Your task to perform on an android device: set an alarm Image 0: 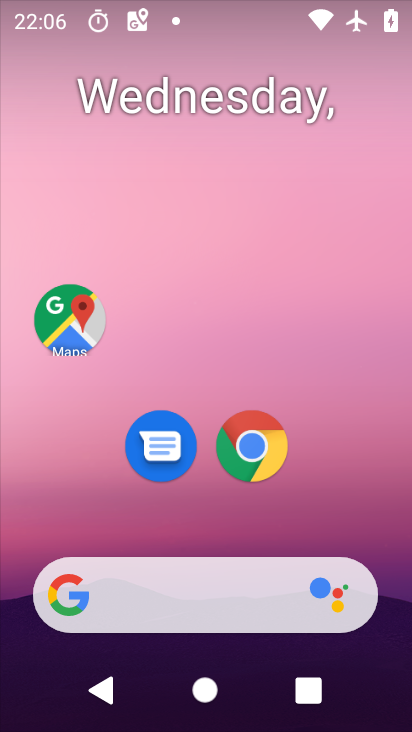
Step 0: drag from (192, 596) to (329, 115)
Your task to perform on an android device: set an alarm Image 1: 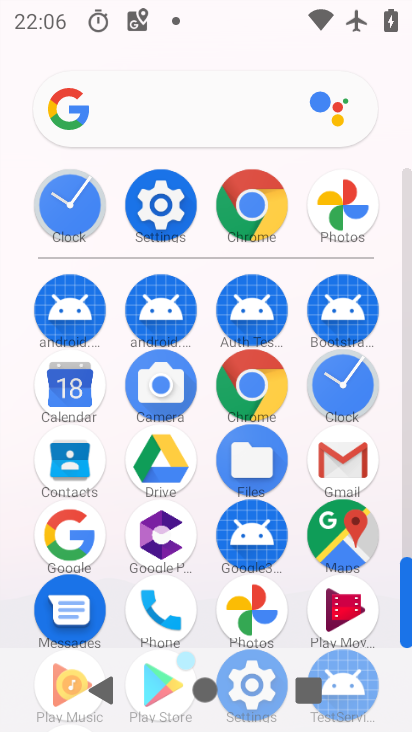
Step 1: click (367, 381)
Your task to perform on an android device: set an alarm Image 2: 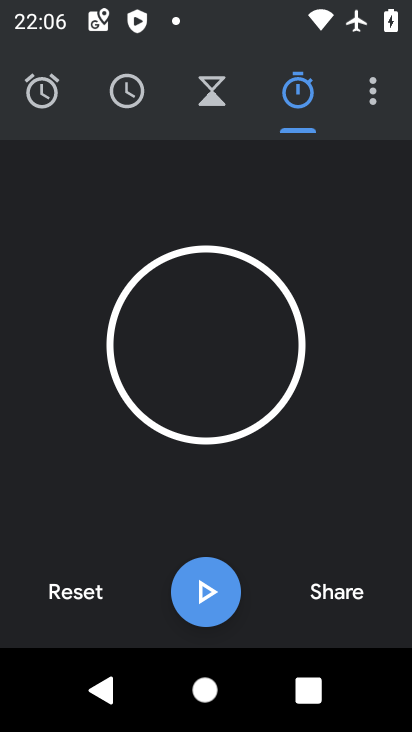
Step 2: click (62, 98)
Your task to perform on an android device: set an alarm Image 3: 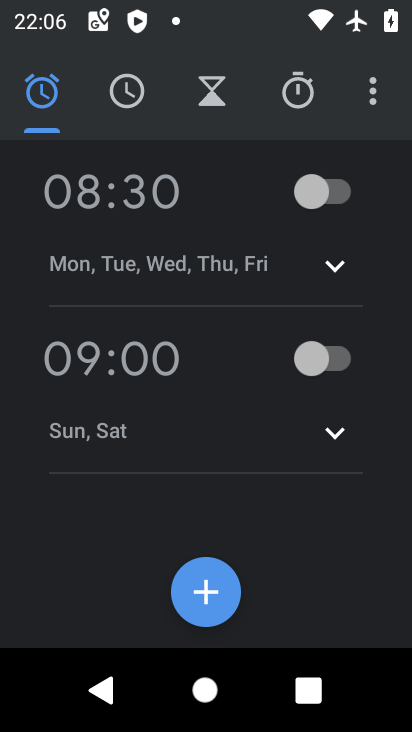
Step 3: click (340, 202)
Your task to perform on an android device: set an alarm Image 4: 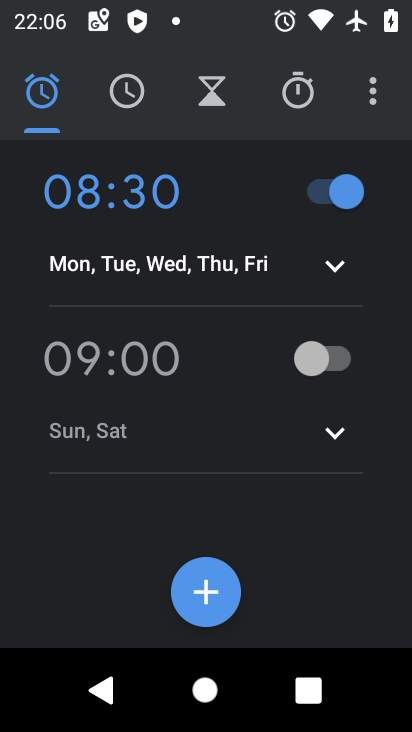
Step 4: task complete